Your task to perform on an android device: delete the emails in spam in the gmail app Image 0: 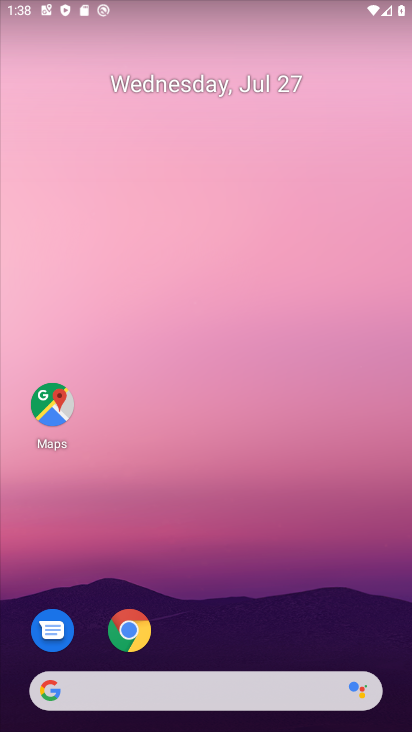
Step 0: drag from (389, 608) to (313, 80)
Your task to perform on an android device: delete the emails in spam in the gmail app Image 1: 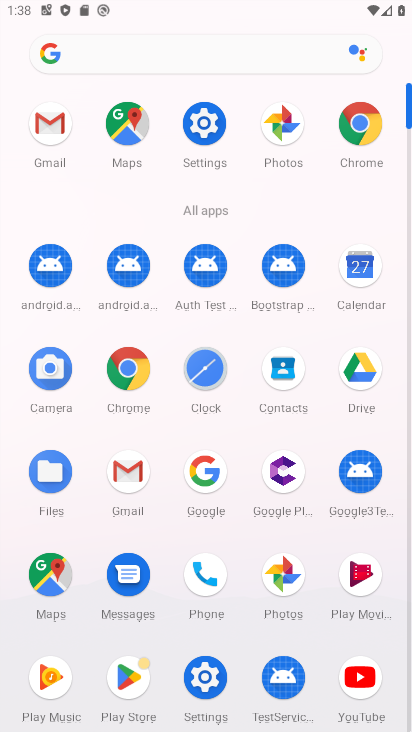
Step 1: click (131, 481)
Your task to perform on an android device: delete the emails in spam in the gmail app Image 2: 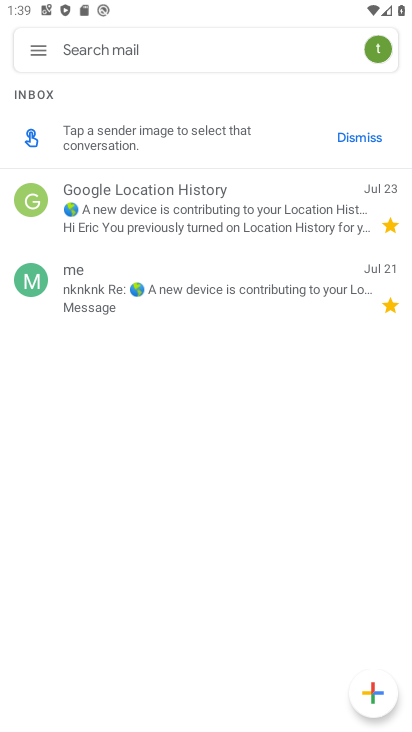
Step 2: click (36, 51)
Your task to perform on an android device: delete the emails in spam in the gmail app Image 3: 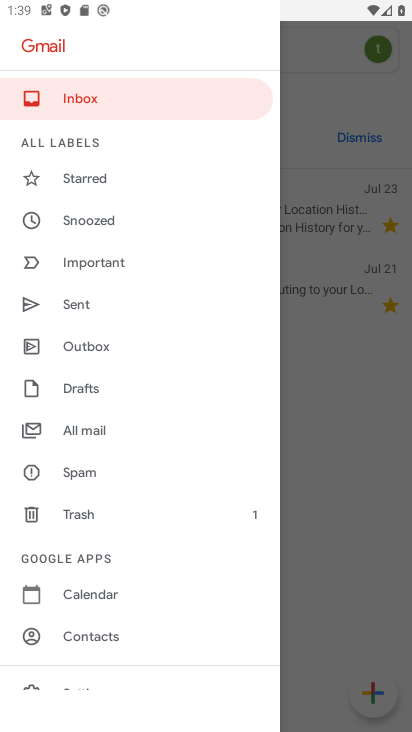
Step 3: click (72, 477)
Your task to perform on an android device: delete the emails in spam in the gmail app Image 4: 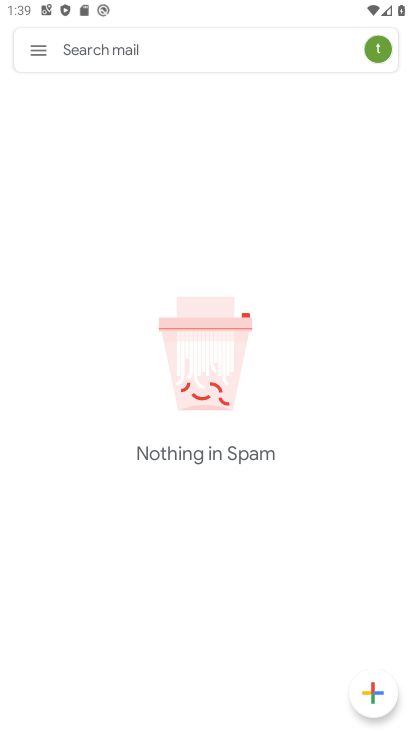
Step 4: task complete